Your task to perform on an android device: open app "Messenger Lite" (install if not already installed), go to login, and select forgot password Image 0: 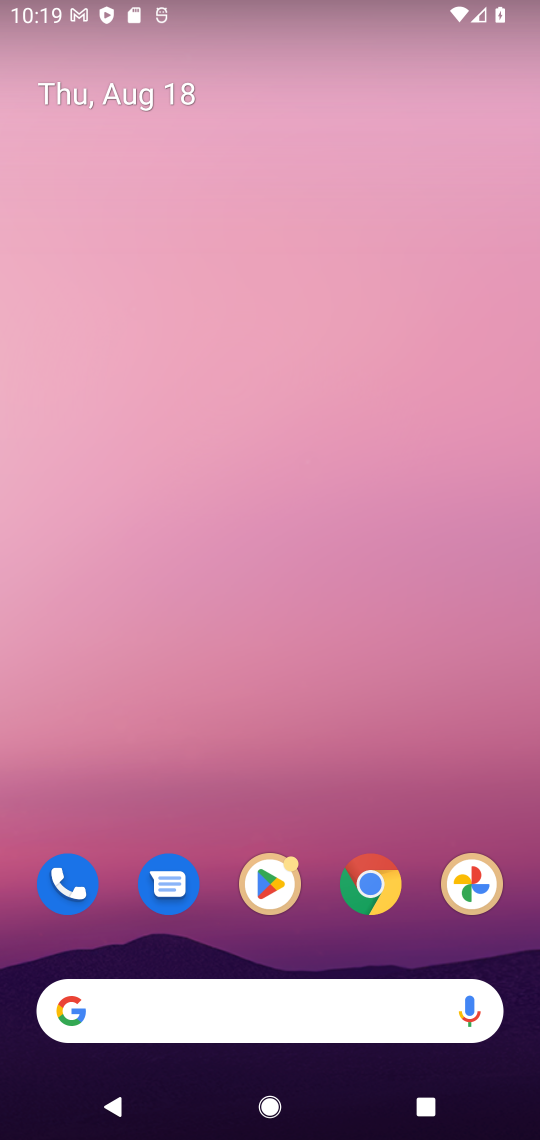
Step 0: drag from (270, 999) to (200, 302)
Your task to perform on an android device: open app "Messenger Lite" (install if not already installed), go to login, and select forgot password Image 1: 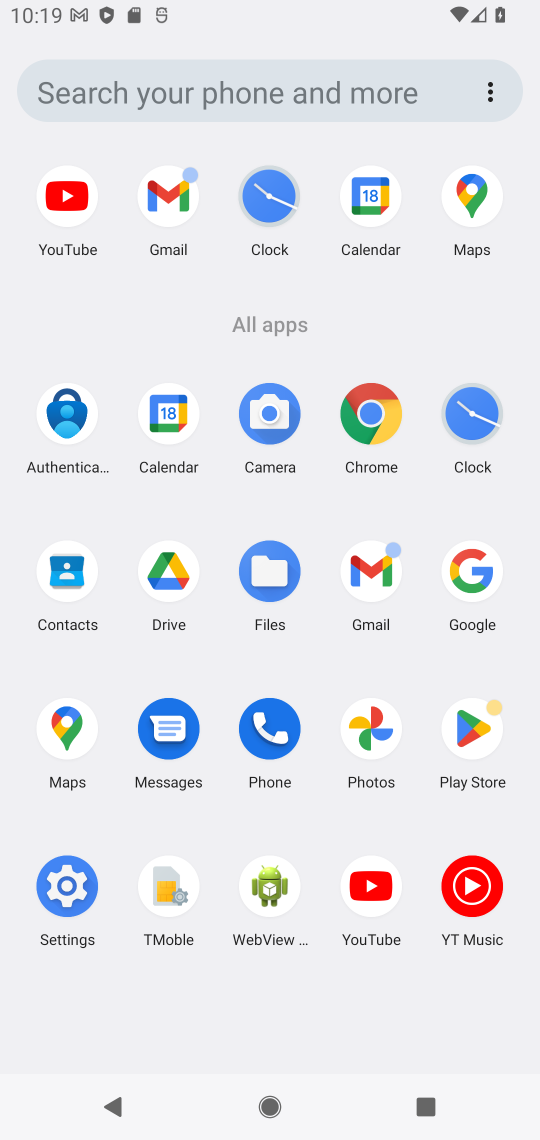
Step 1: drag from (230, 1013) to (297, 834)
Your task to perform on an android device: open app "Messenger Lite" (install if not already installed), go to login, and select forgot password Image 2: 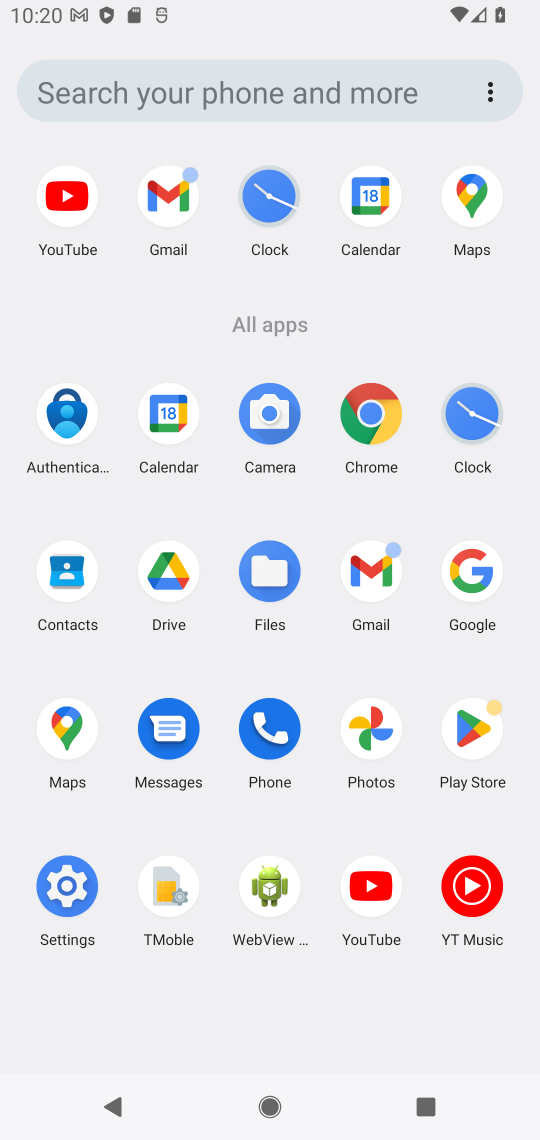
Step 2: click (481, 716)
Your task to perform on an android device: open app "Messenger Lite" (install if not already installed), go to login, and select forgot password Image 3: 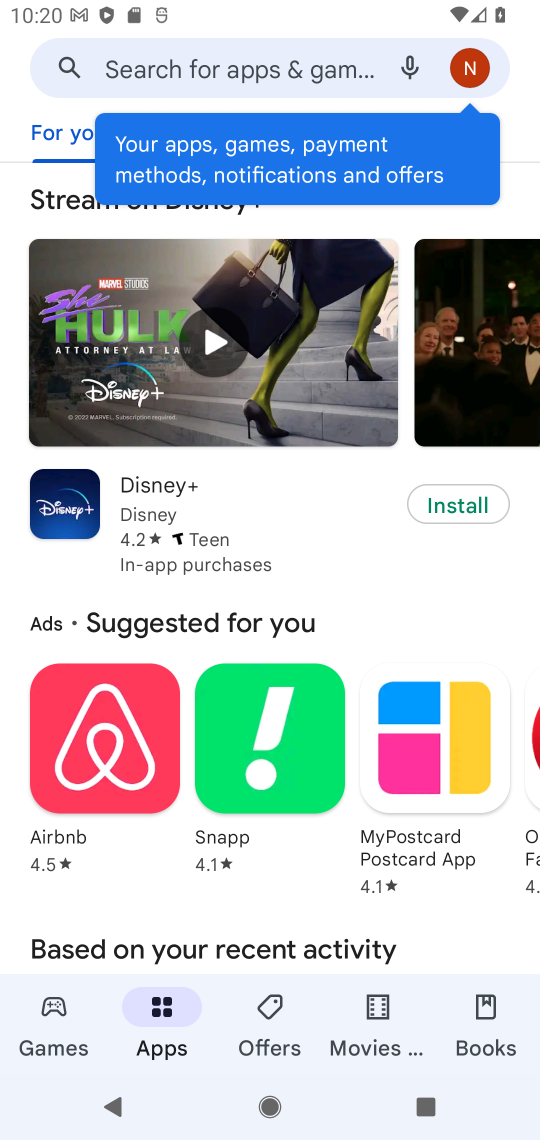
Step 3: click (325, 56)
Your task to perform on an android device: open app "Messenger Lite" (install if not already installed), go to login, and select forgot password Image 4: 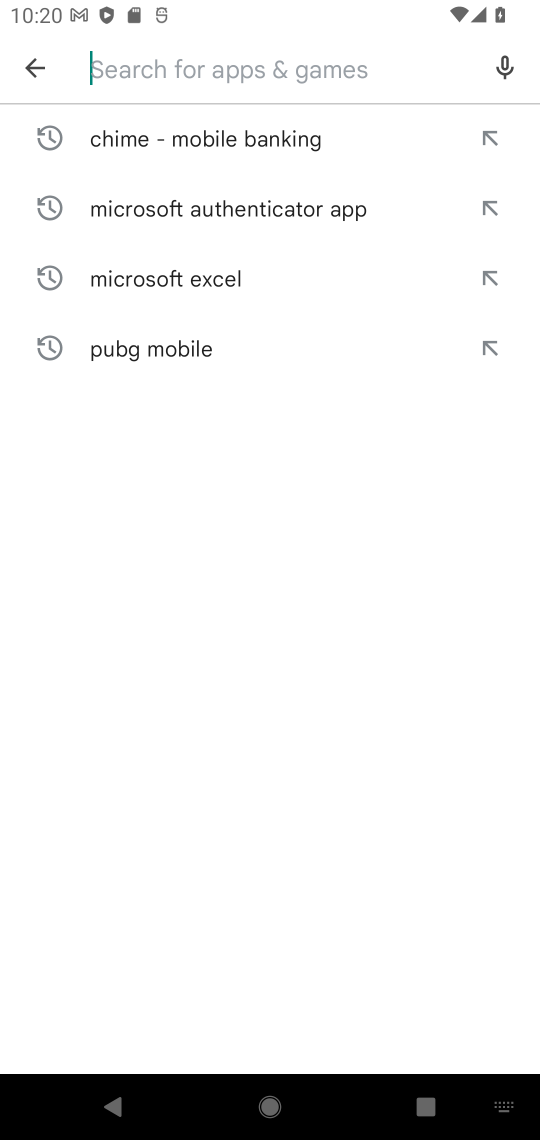
Step 4: type "Messenger Lite"
Your task to perform on an android device: open app "Messenger Lite" (install if not already installed), go to login, and select forgot password Image 5: 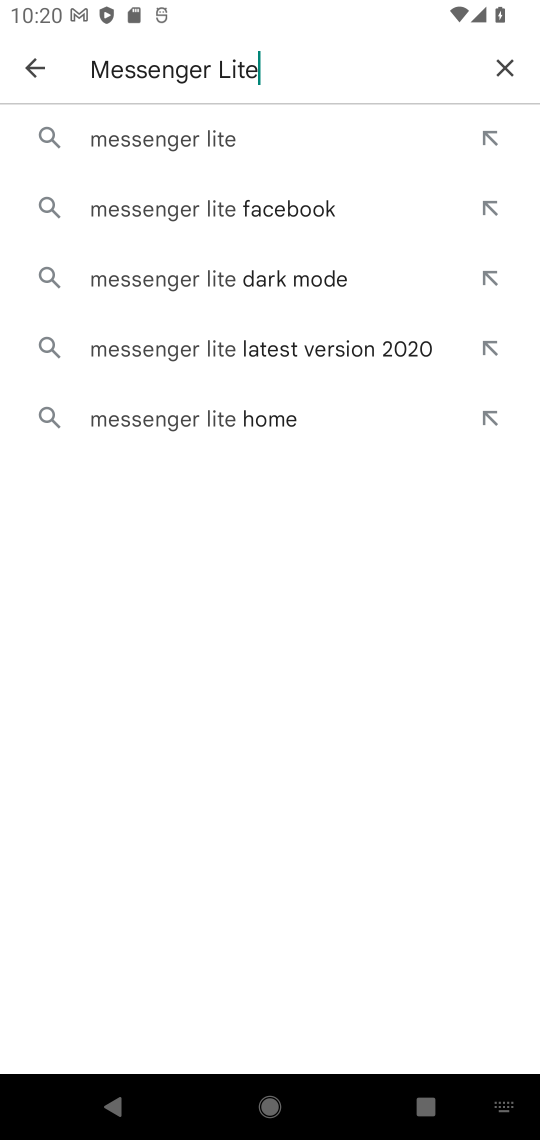
Step 5: click (145, 138)
Your task to perform on an android device: open app "Messenger Lite" (install if not already installed), go to login, and select forgot password Image 6: 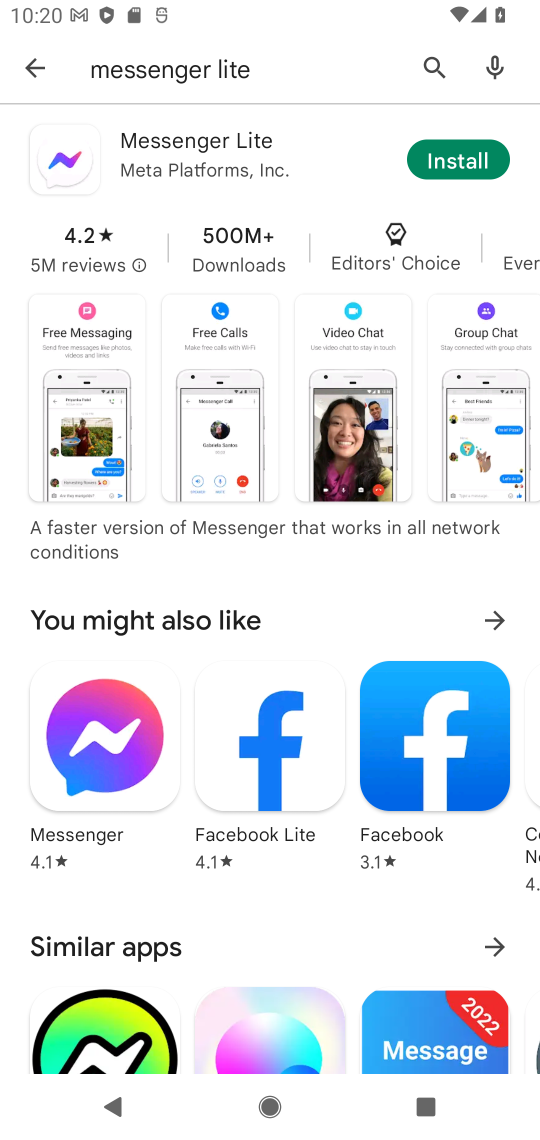
Step 6: click (461, 166)
Your task to perform on an android device: open app "Messenger Lite" (install if not already installed), go to login, and select forgot password Image 7: 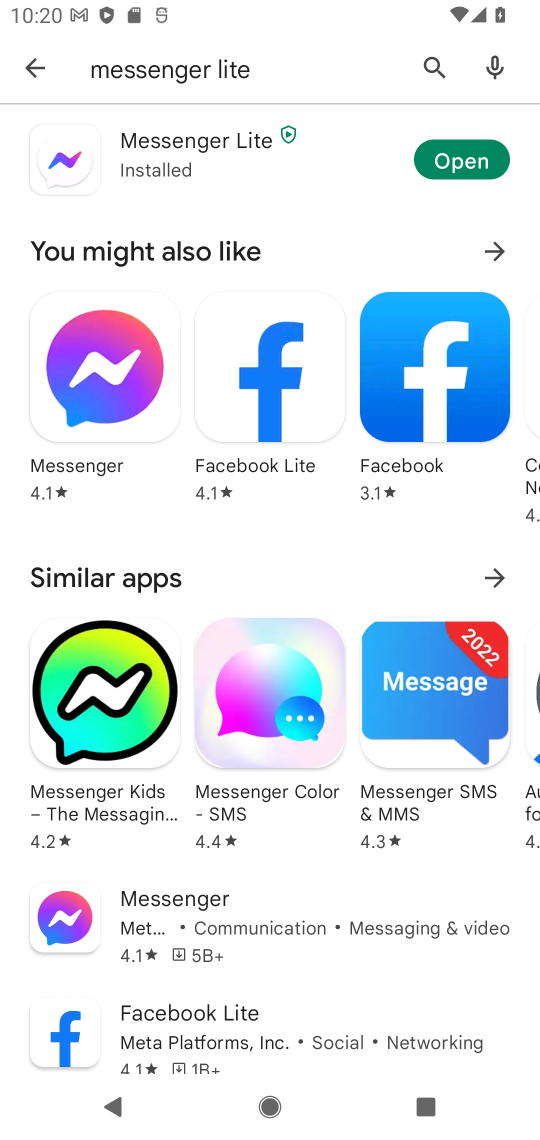
Step 7: click (459, 167)
Your task to perform on an android device: open app "Messenger Lite" (install if not already installed), go to login, and select forgot password Image 8: 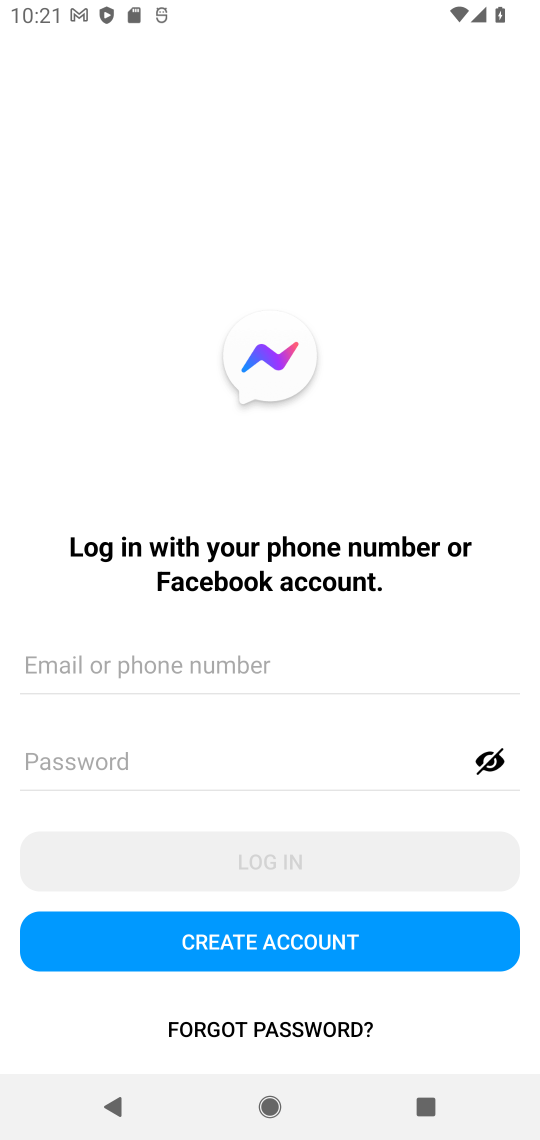
Step 8: click (265, 1026)
Your task to perform on an android device: open app "Messenger Lite" (install if not already installed), go to login, and select forgot password Image 9: 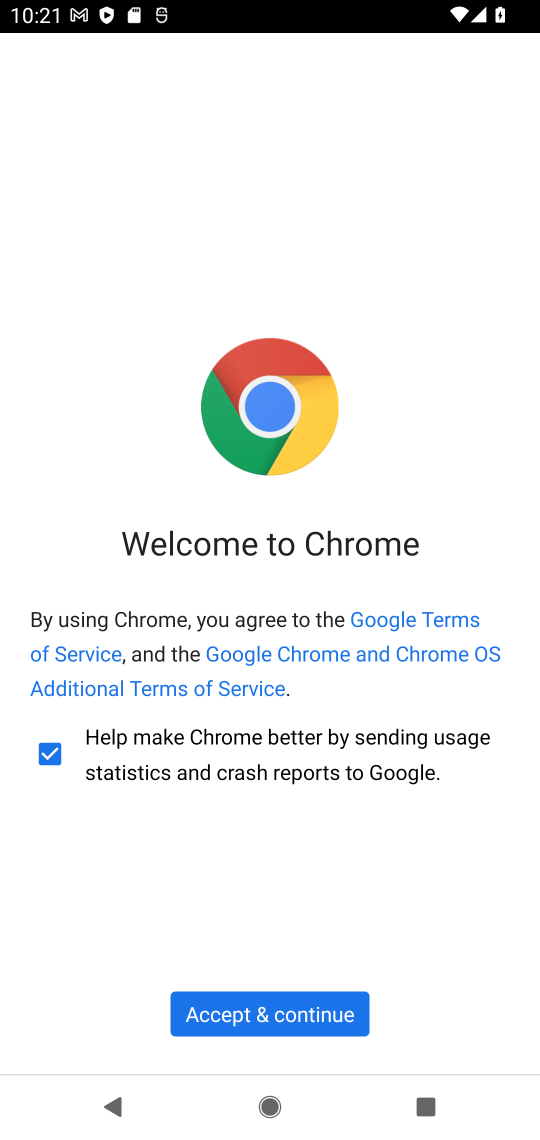
Step 9: task complete